Your task to perform on an android device: turn off improve location accuracy Image 0: 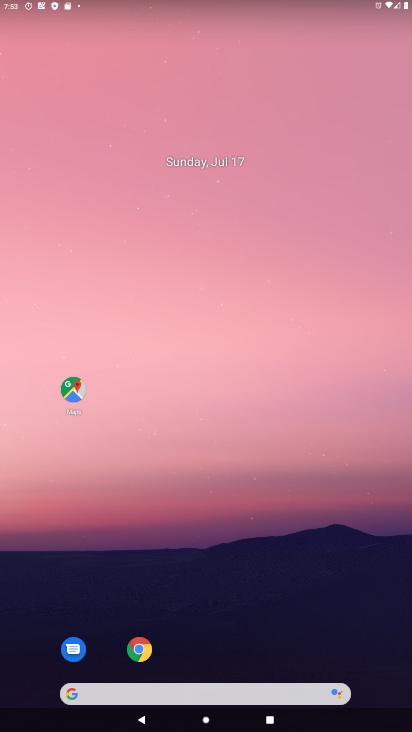
Step 0: drag from (204, 621) to (219, 162)
Your task to perform on an android device: turn off improve location accuracy Image 1: 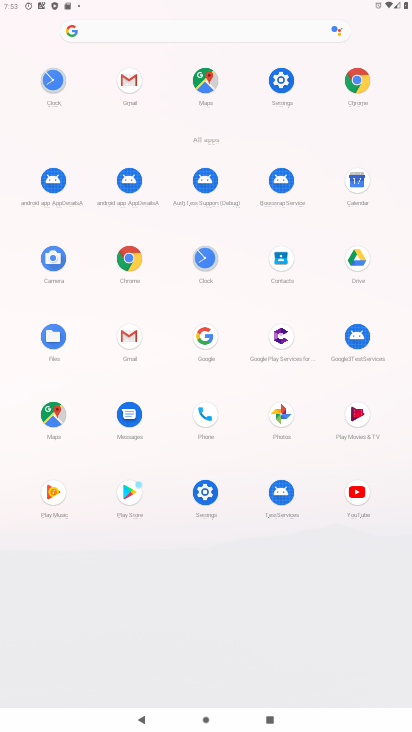
Step 1: click (208, 499)
Your task to perform on an android device: turn off improve location accuracy Image 2: 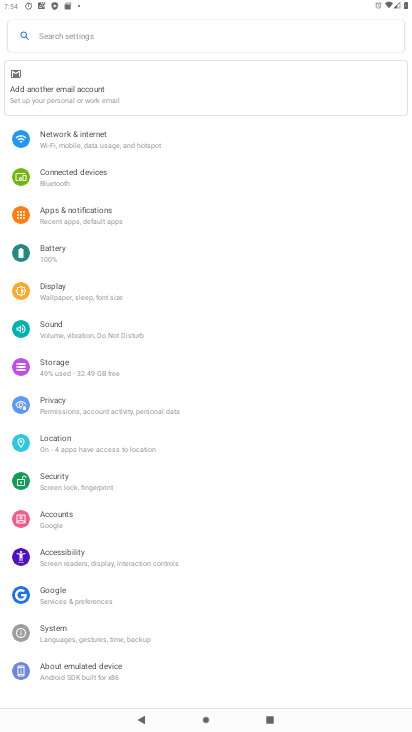
Step 2: click (68, 437)
Your task to perform on an android device: turn off improve location accuracy Image 3: 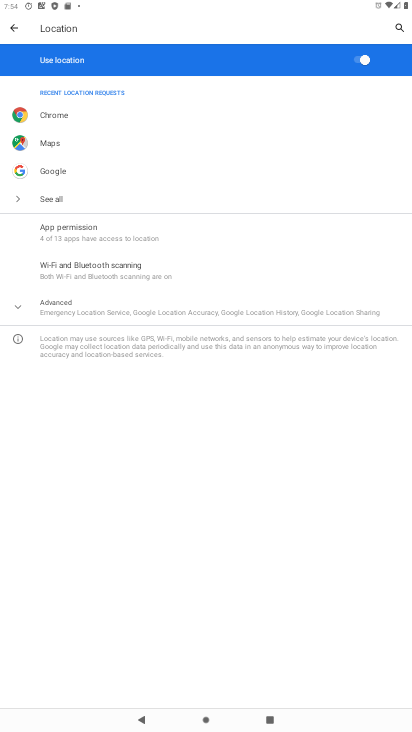
Step 3: click (114, 305)
Your task to perform on an android device: turn off improve location accuracy Image 4: 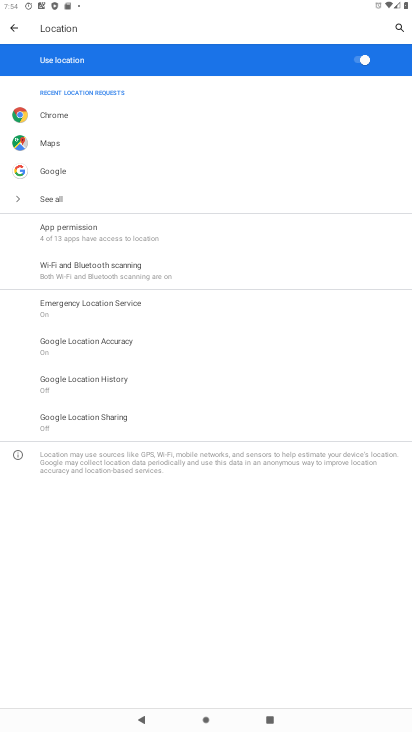
Step 4: click (129, 344)
Your task to perform on an android device: turn off improve location accuracy Image 5: 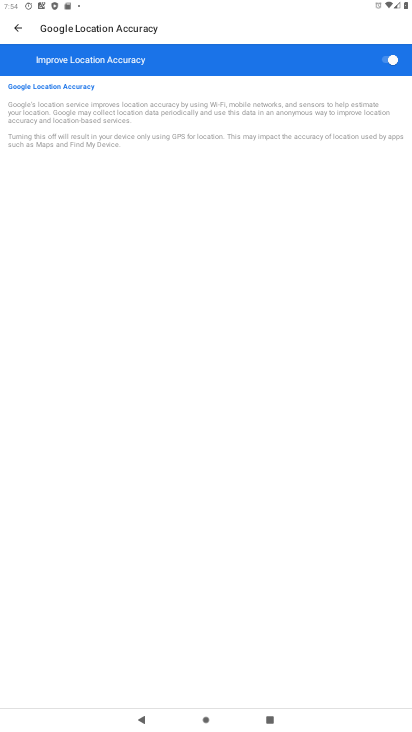
Step 5: click (374, 63)
Your task to perform on an android device: turn off improve location accuracy Image 6: 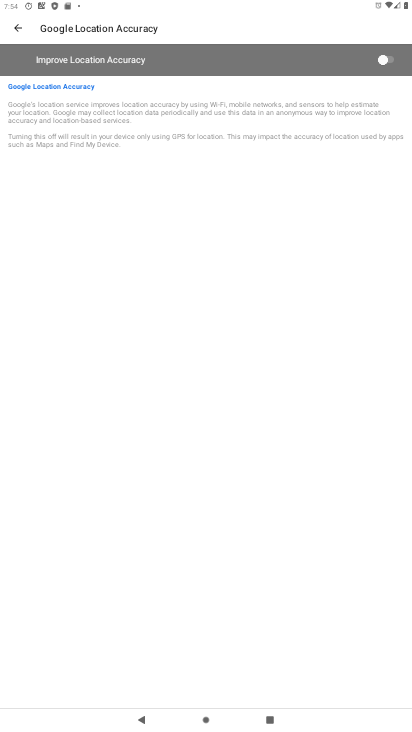
Step 6: task complete